Your task to perform on an android device: open chrome privacy settings Image 0: 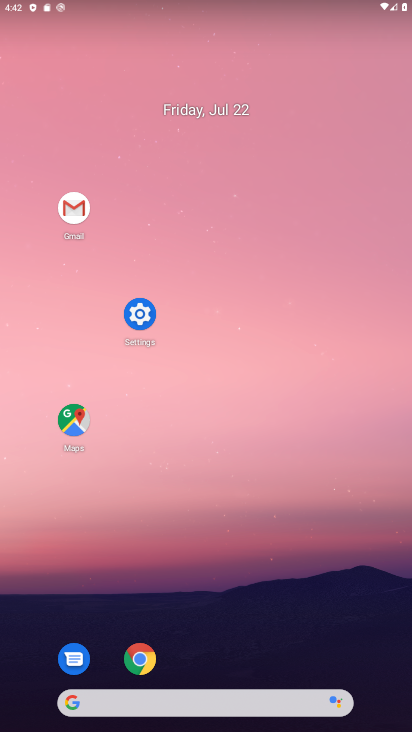
Step 0: click (137, 665)
Your task to perform on an android device: open chrome privacy settings Image 1: 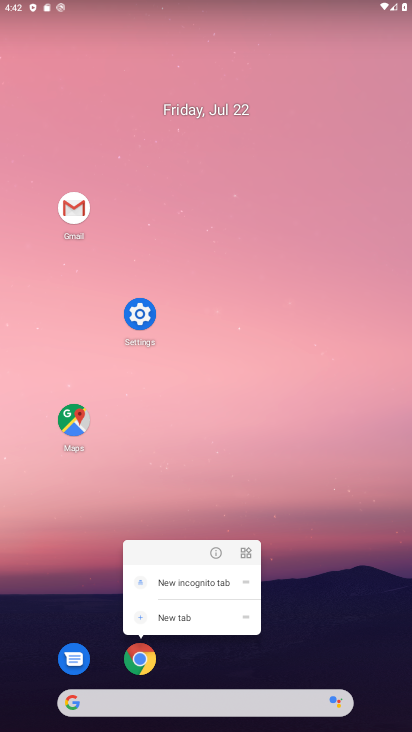
Step 1: click (134, 668)
Your task to perform on an android device: open chrome privacy settings Image 2: 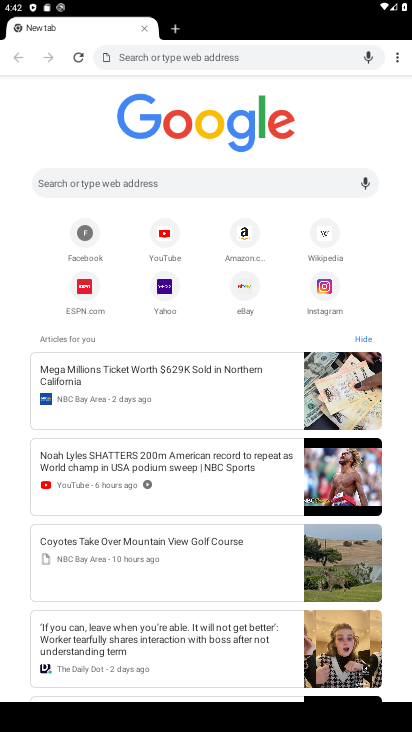
Step 2: click (394, 53)
Your task to perform on an android device: open chrome privacy settings Image 3: 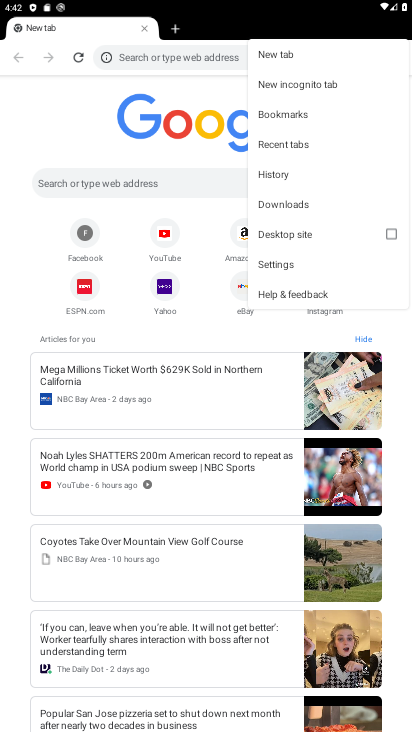
Step 3: click (303, 266)
Your task to perform on an android device: open chrome privacy settings Image 4: 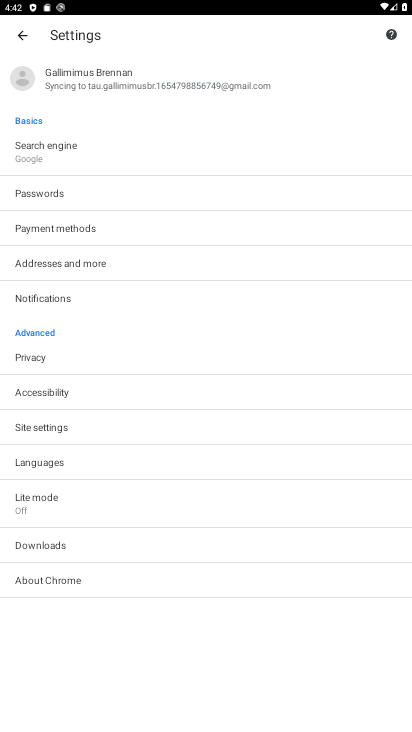
Step 4: click (54, 368)
Your task to perform on an android device: open chrome privacy settings Image 5: 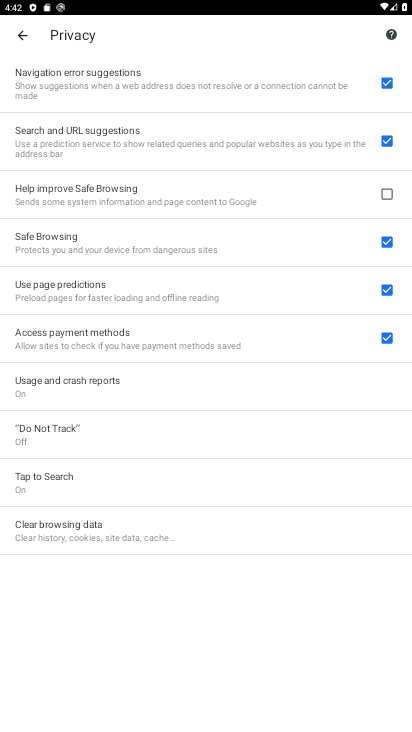
Step 5: task complete